Your task to perform on an android device: Toggle the flashlight Image 0: 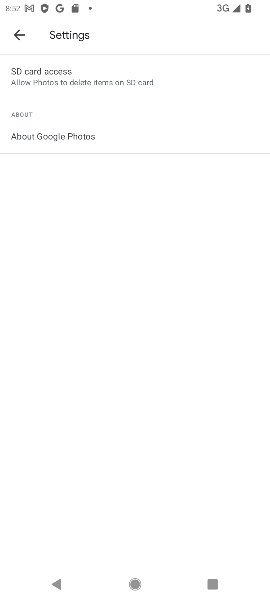
Step 0: click (19, 33)
Your task to perform on an android device: Toggle the flashlight Image 1: 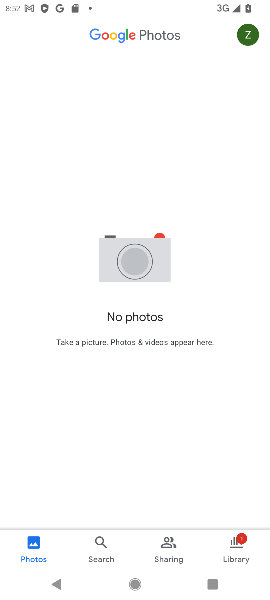
Step 1: task complete